Your task to perform on an android device: see sites visited before in the chrome app Image 0: 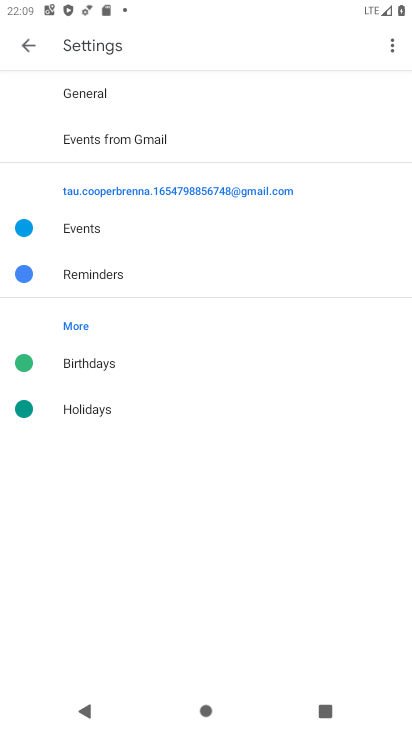
Step 0: press back button
Your task to perform on an android device: see sites visited before in the chrome app Image 1: 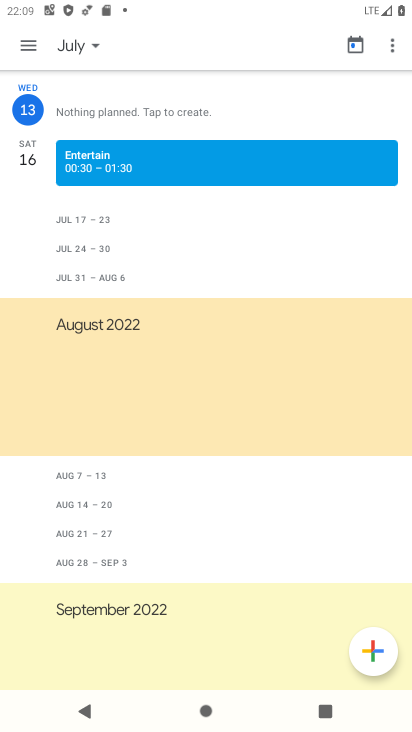
Step 1: press back button
Your task to perform on an android device: see sites visited before in the chrome app Image 2: 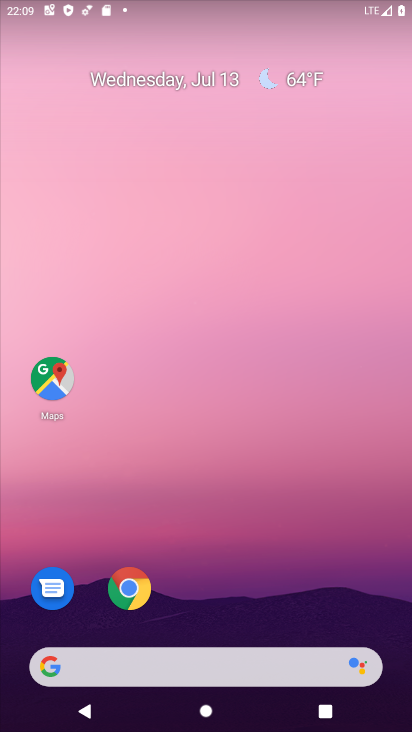
Step 2: click (133, 585)
Your task to perform on an android device: see sites visited before in the chrome app Image 3: 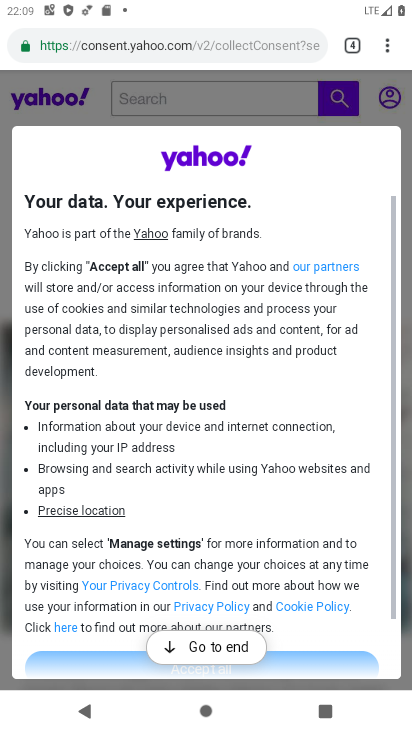
Step 3: task complete